Your task to perform on an android device: turn notification dots on Image 0: 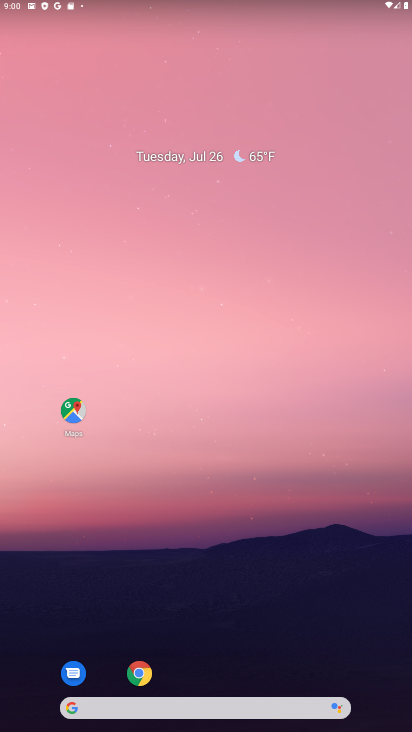
Step 0: drag from (369, 666) to (323, 77)
Your task to perform on an android device: turn notification dots on Image 1: 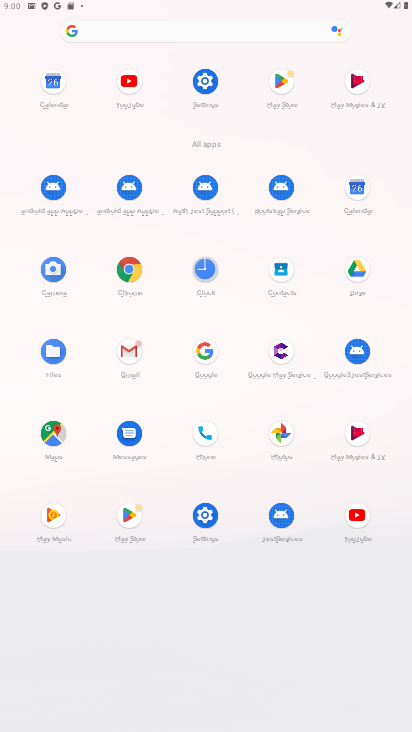
Step 1: click (207, 514)
Your task to perform on an android device: turn notification dots on Image 2: 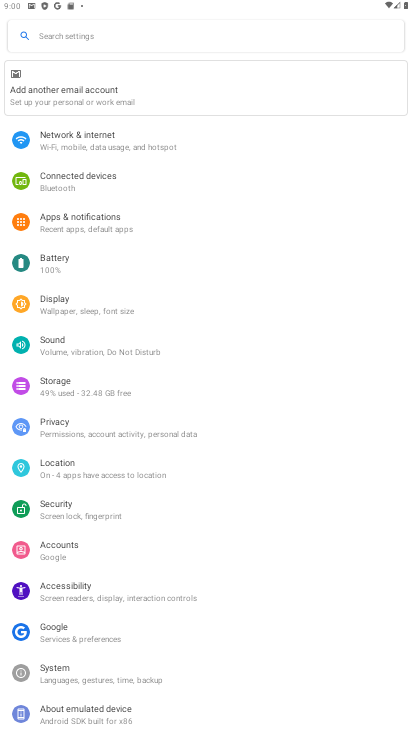
Step 2: click (72, 221)
Your task to perform on an android device: turn notification dots on Image 3: 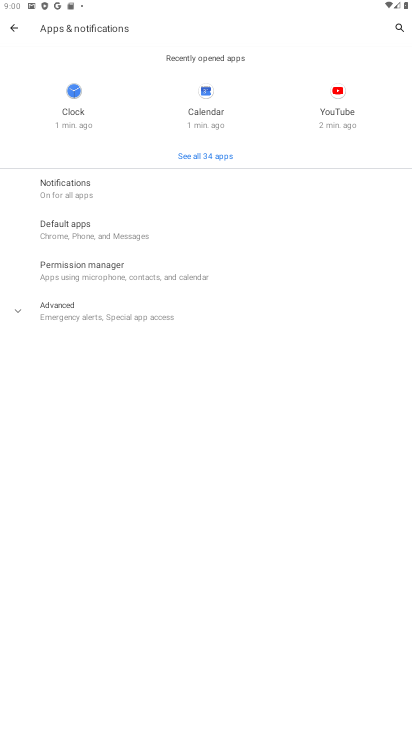
Step 3: click (58, 183)
Your task to perform on an android device: turn notification dots on Image 4: 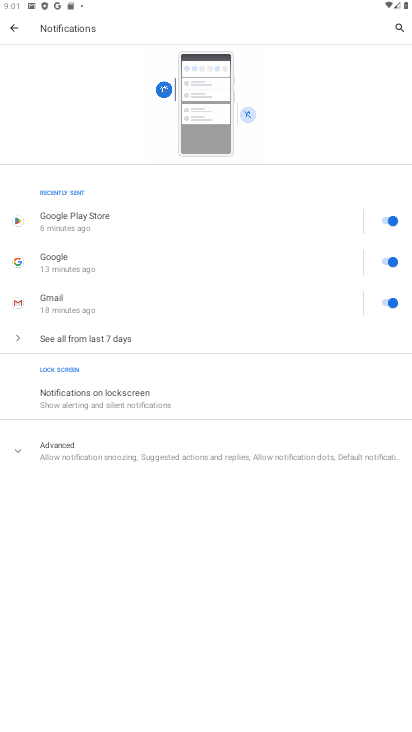
Step 4: click (10, 450)
Your task to perform on an android device: turn notification dots on Image 5: 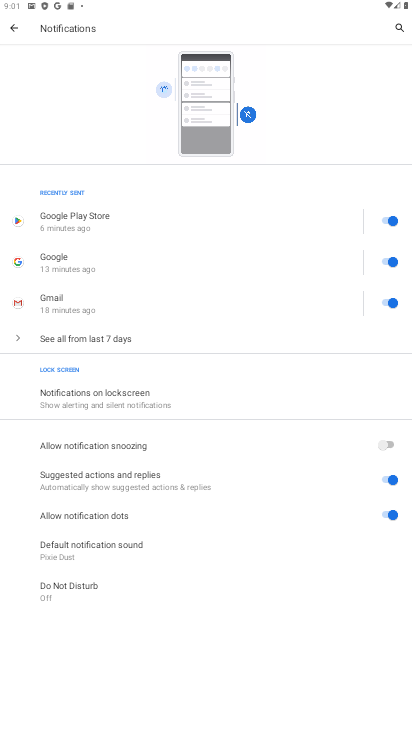
Step 5: task complete